Your task to perform on an android device: Search for hotels in London Image 0: 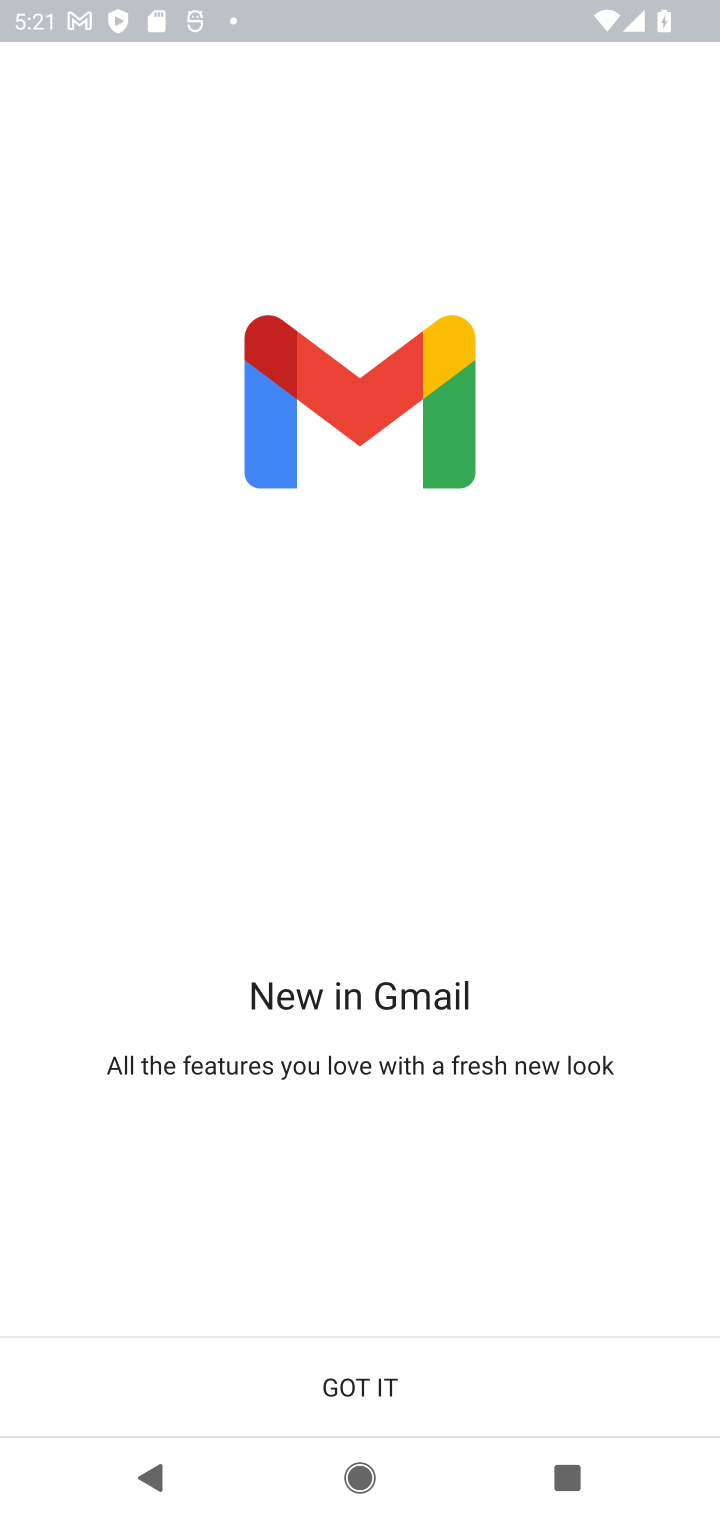
Step 0: press home button
Your task to perform on an android device: Search for hotels in London Image 1: 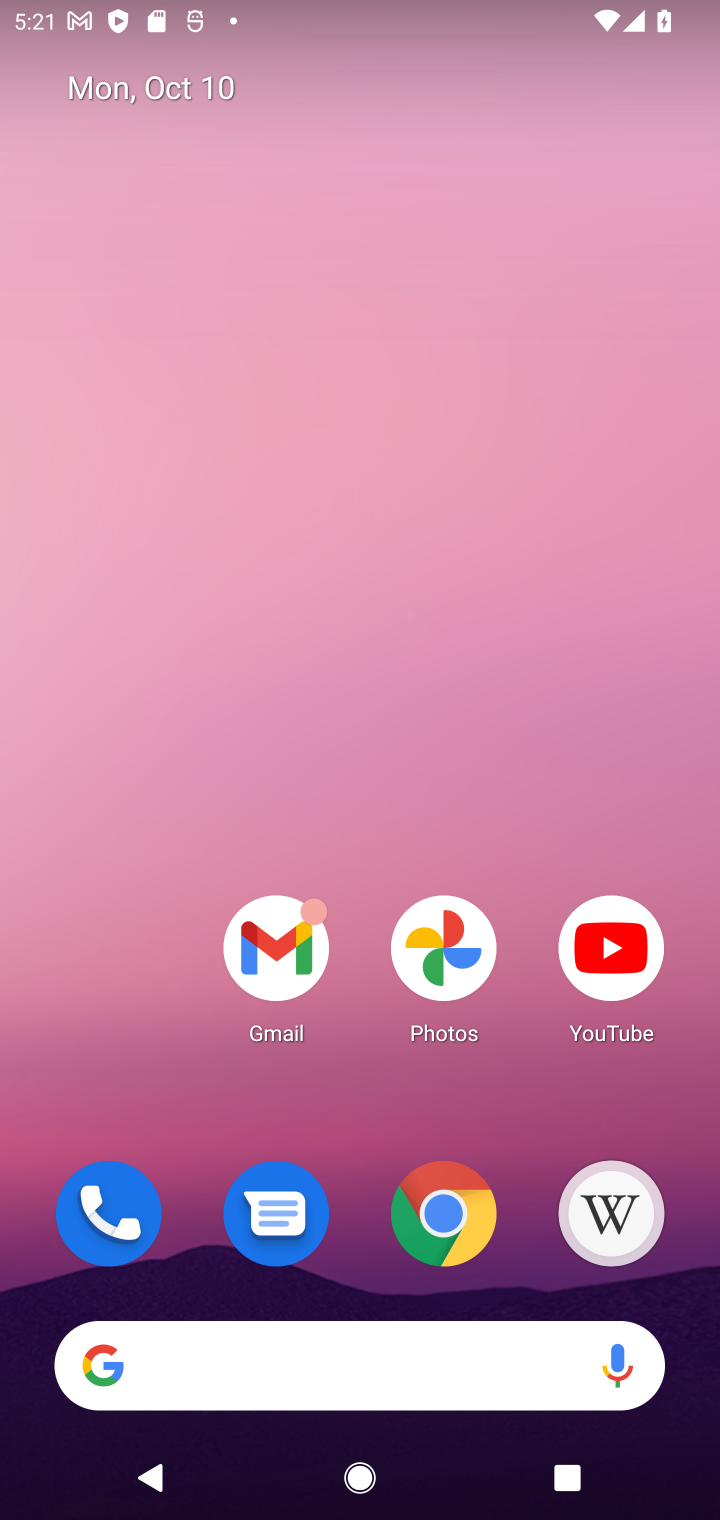
Step 1: click (227, 1392)
Your task to perform on an android device: Search for hotels in London Image 2: 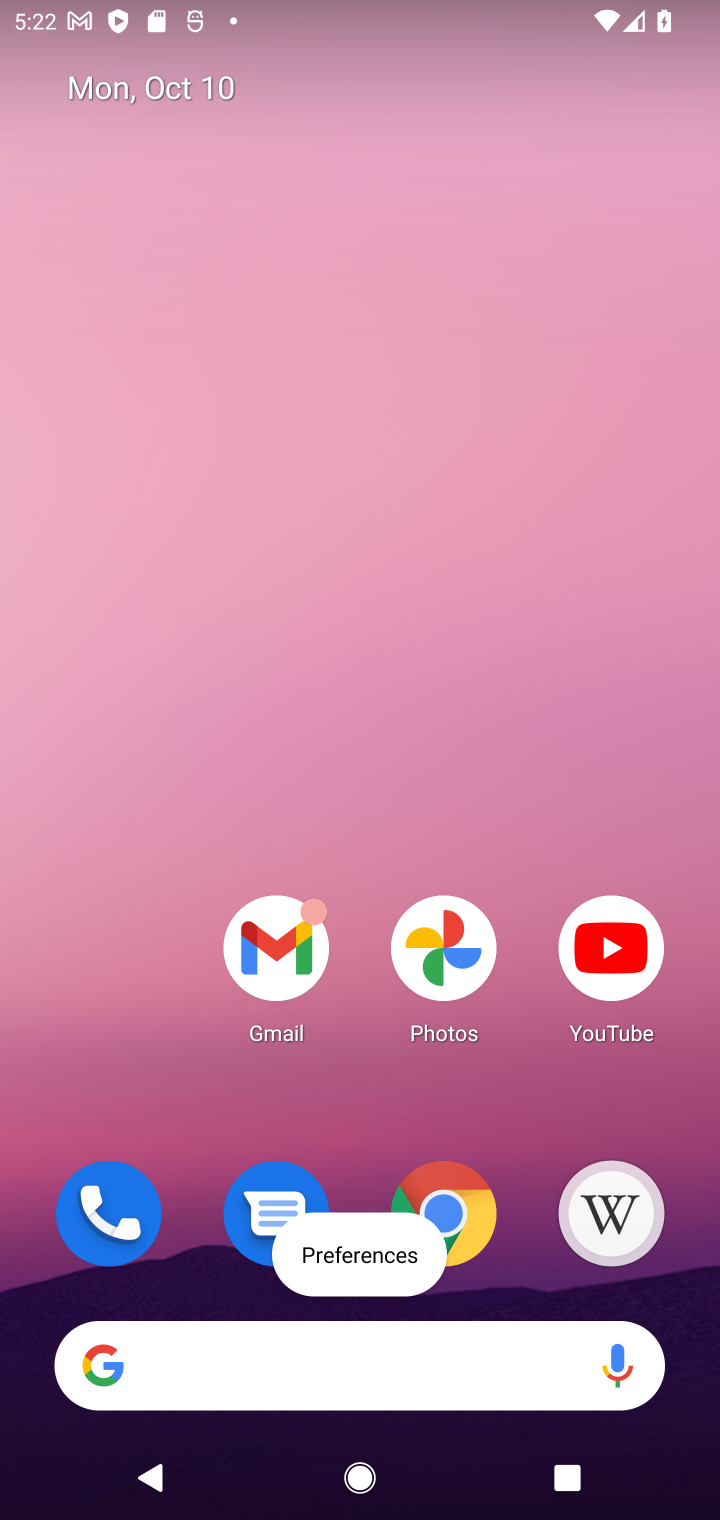
Step 2: click (265, 1327)
Your task to perform on an android device: Search for hotels in London Image 3: 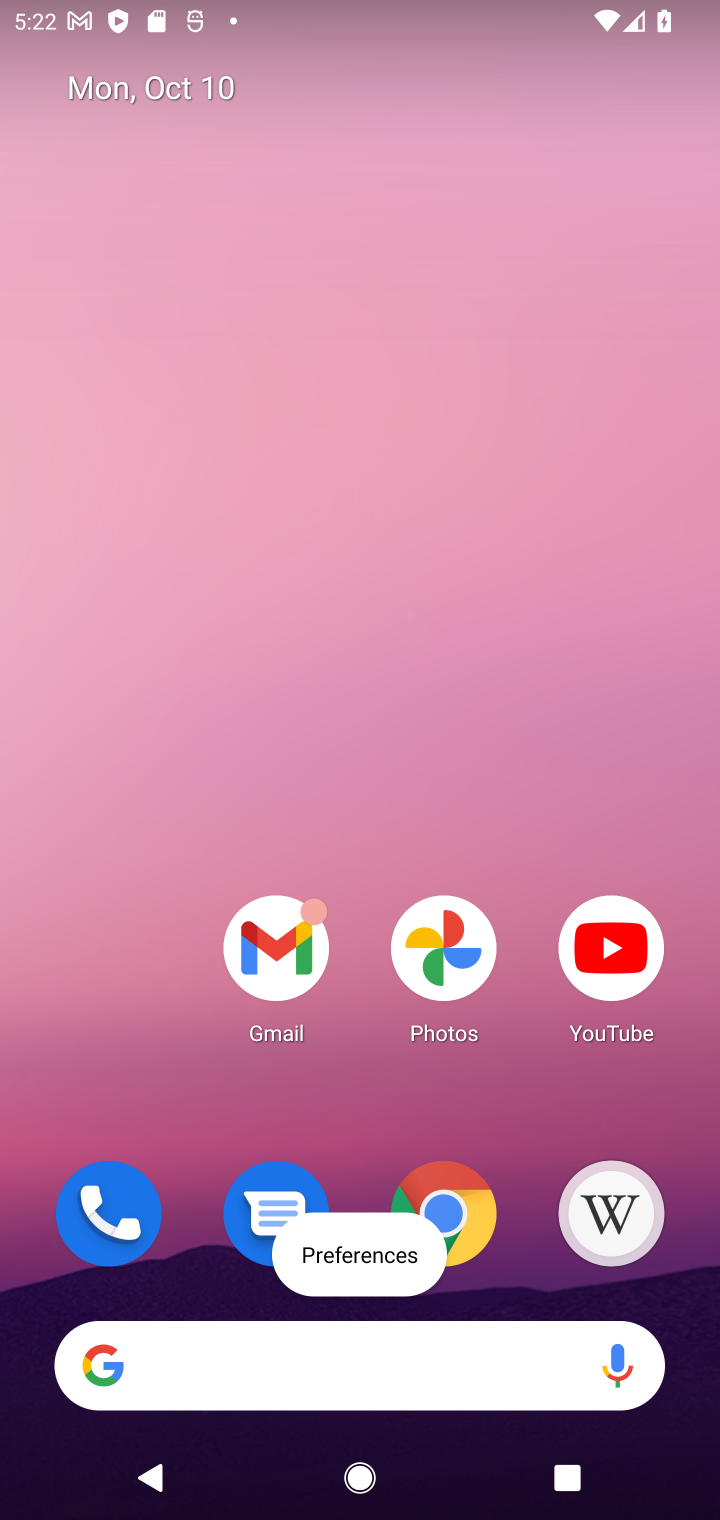
Step 3: click (260, 1372)
Your task to perform on an android device: Search for hotels in London Image 4: 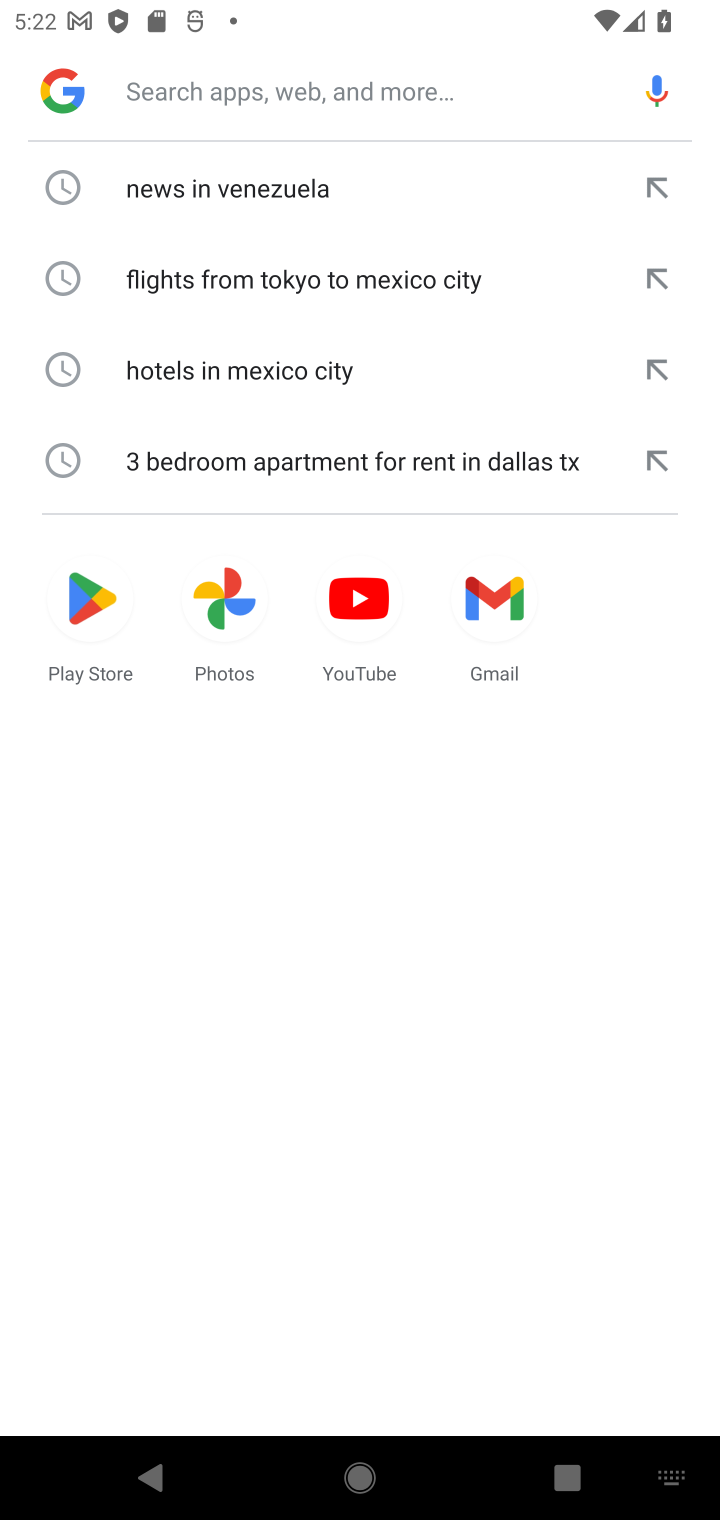
Step 4: click (240, 102)
Your task to perform on an android device: Search for hotels in London Image 5: 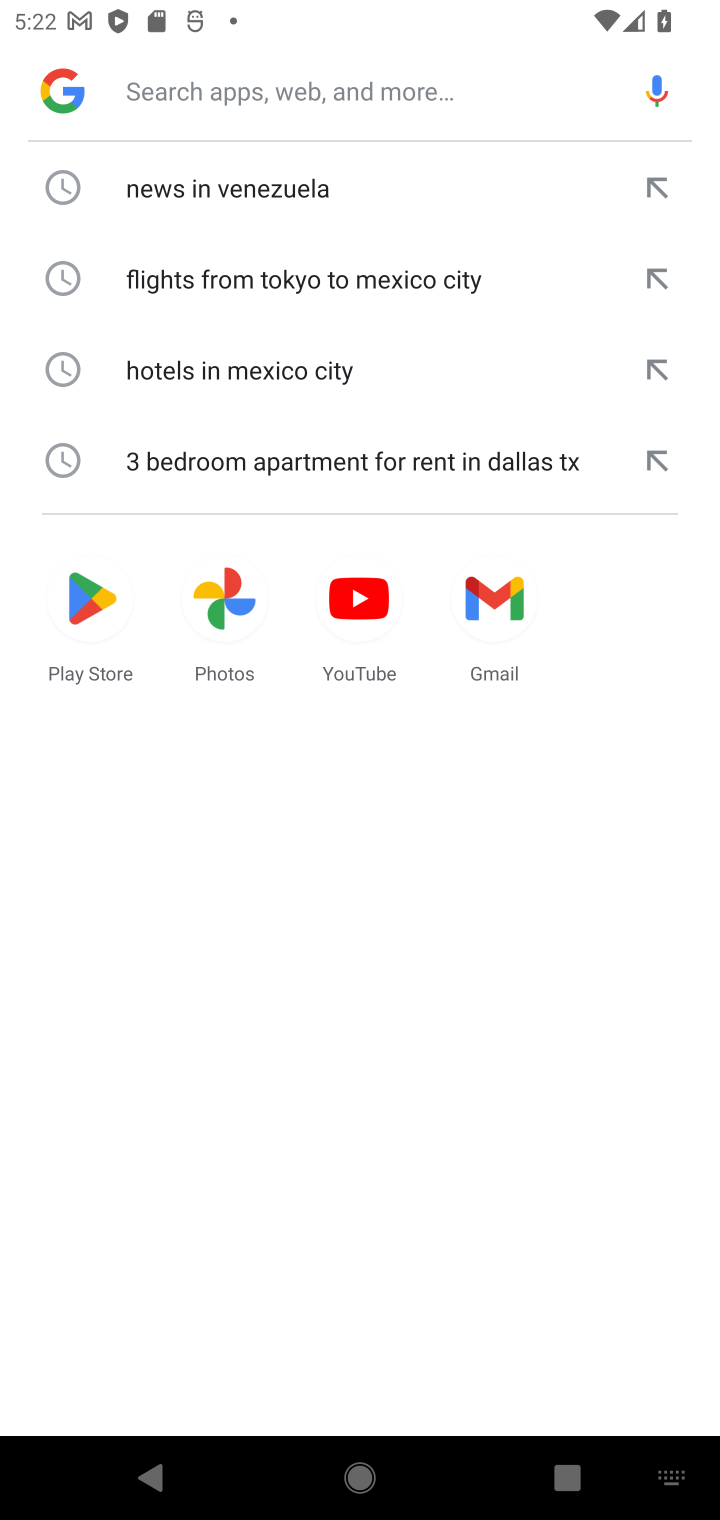
Step 5: type "Search for hotels in London"
Your task to perform on an android device: Search for hotels in London Image 6: 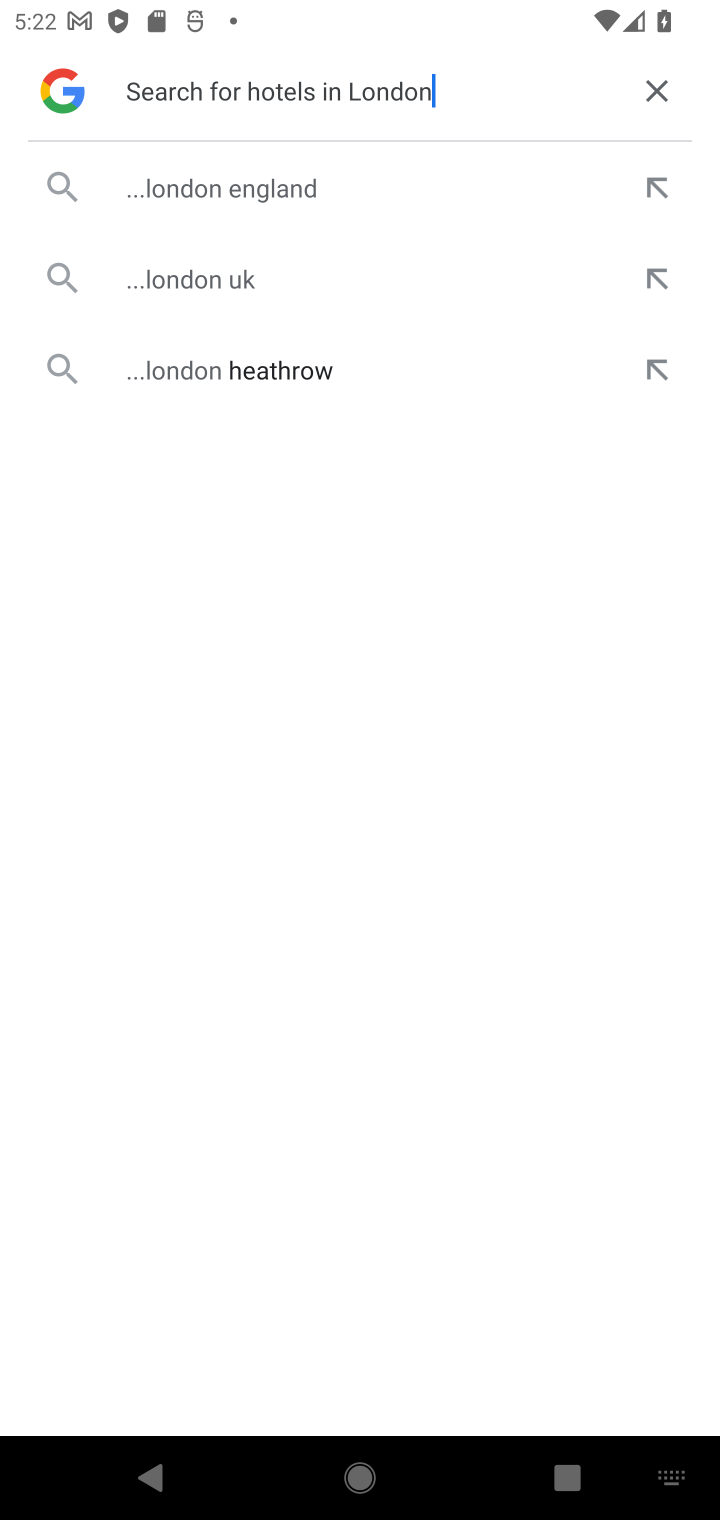
Step 6: click (180, 164)
Your task to perform on an android device: Search for hotels in London Image 7: 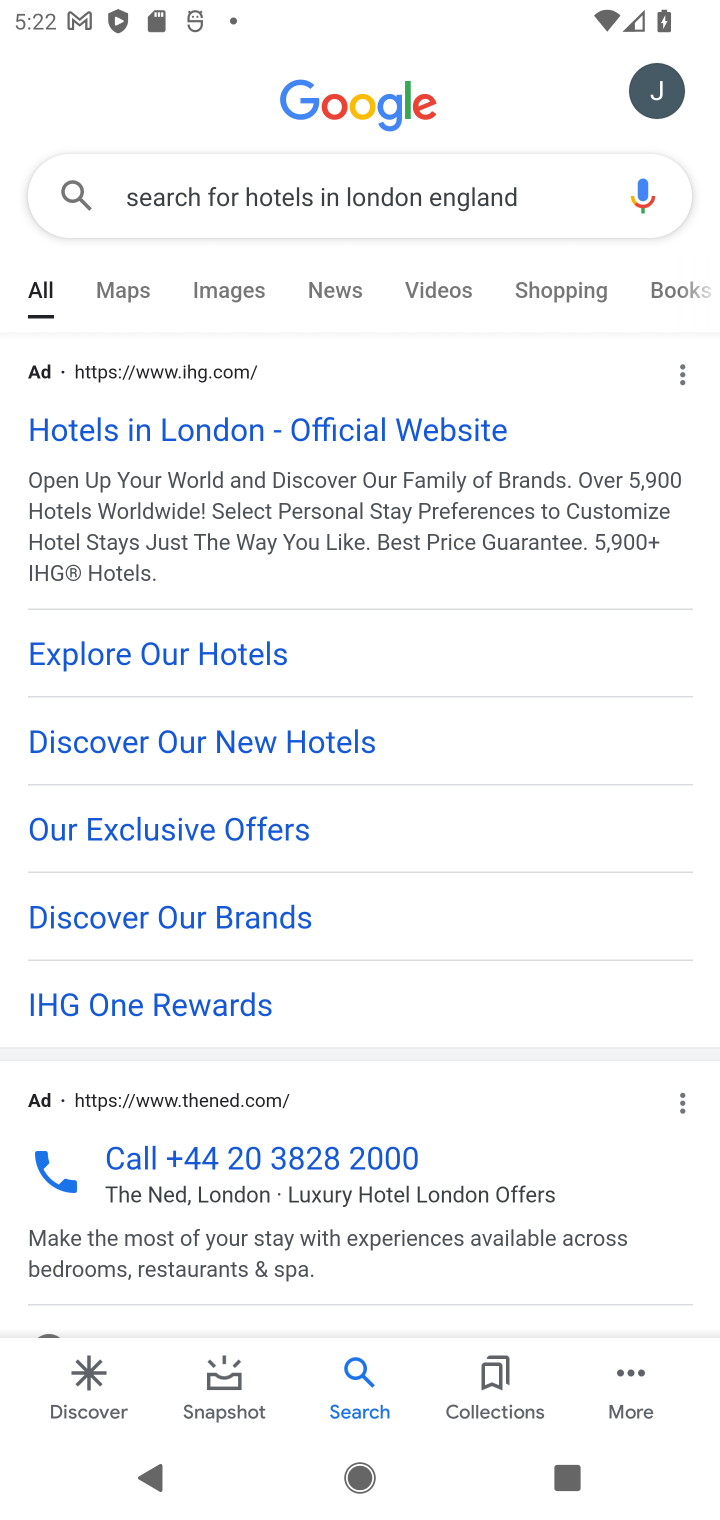
Step 7: task complete